Your task to perform on an android device: turn pop-ups off in chrome Image 0: 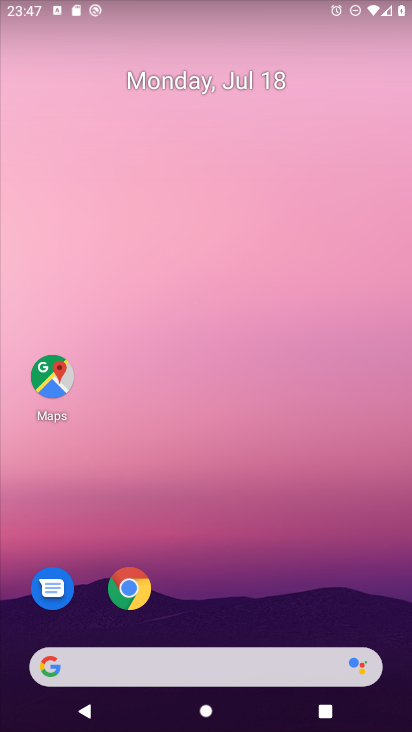
Step 0: click (134, 590)
Your task to perform on an android device: turn pop-ups off in chrome Image 1: 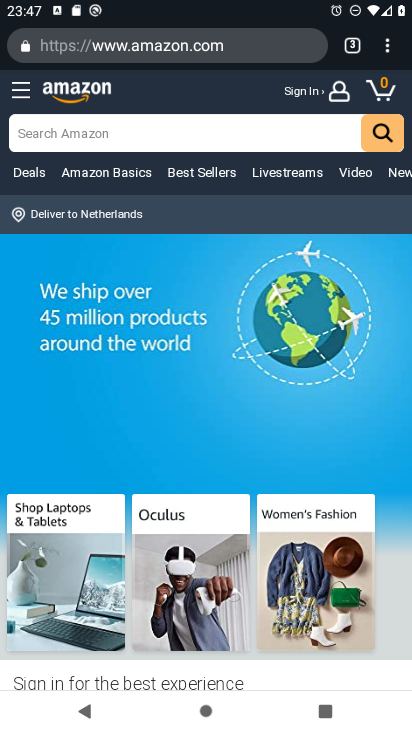
Step 1: click (386, 54)
Your task to perform on an android device: turn pop-ups off in chrome Image 2: 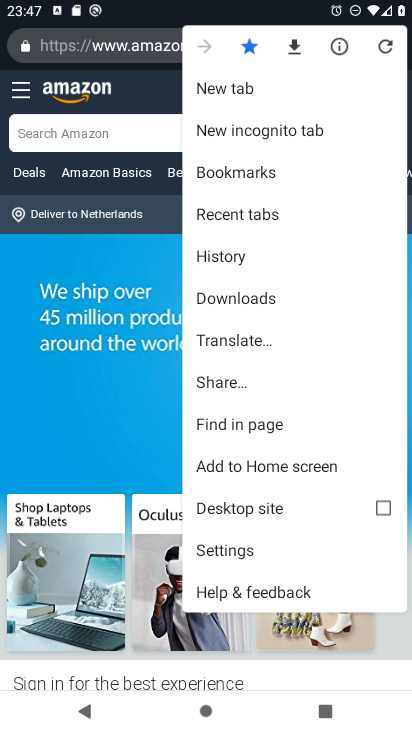
Step 2: click (212, 546)
Your task to perform on an android device: turn pop-ups off in chrome Image 3: 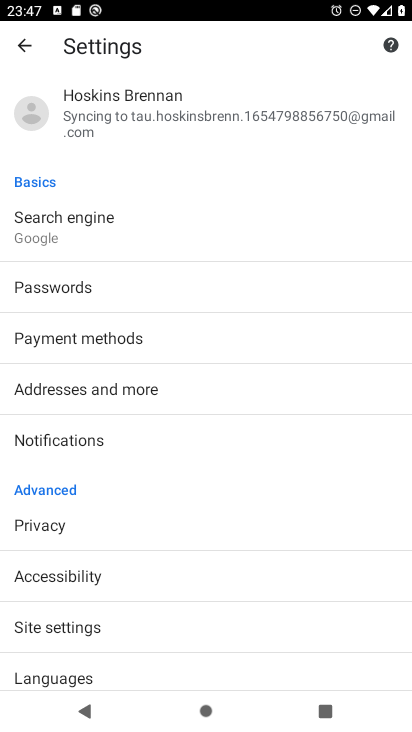
Step 3: drag from (162, 642) to (190, 231)
Your task to perform on an android device: turn pop-ups off in chrome Image 4: 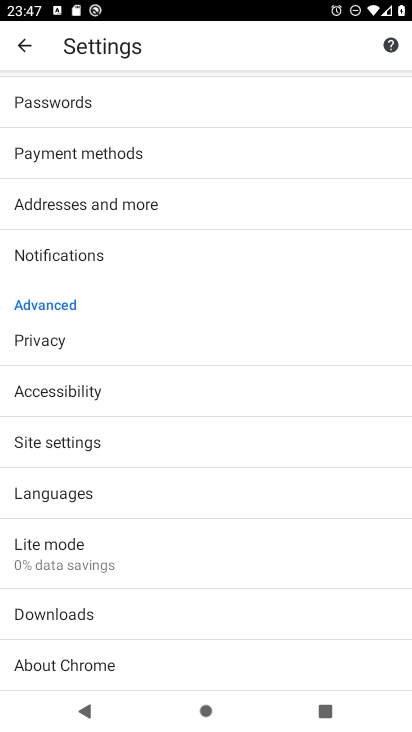
Step 4: click (53, 440)
Your task to perform on an android device: turn pop-ups off in chrome Image 5: 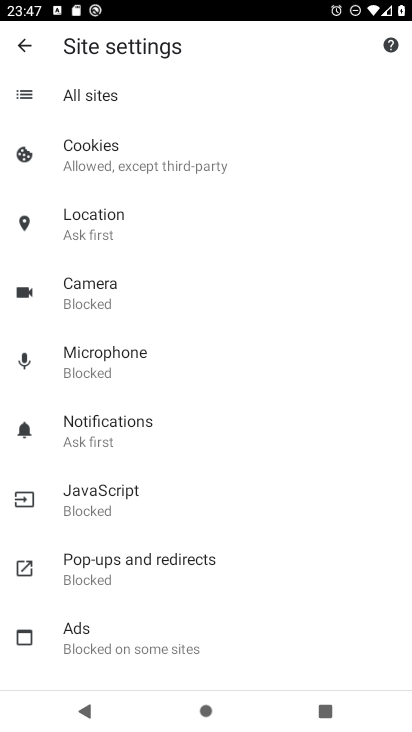
Step 5: click (98, 568)
Your task to perform on an android device: turn pop-ups off in chrome Image 6: 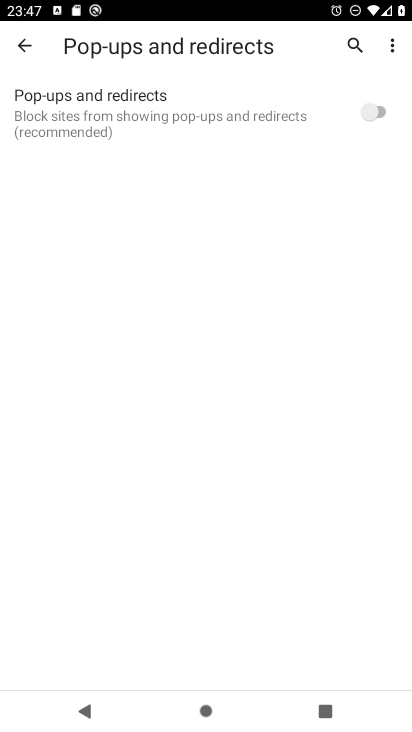
Step 6: task complete